Your task to perform on an android device: What's the latest video from GameSpot? Image 0: 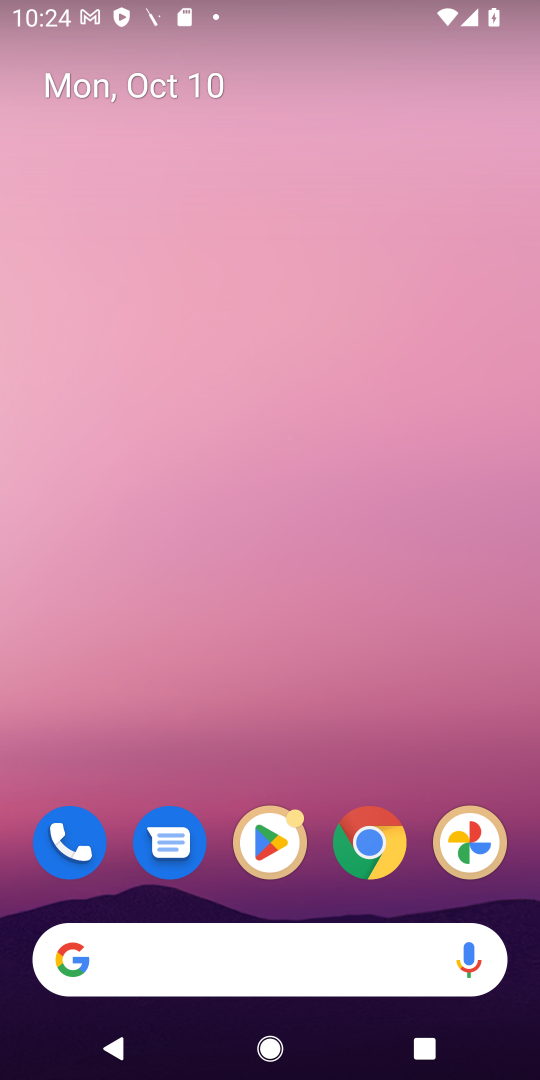
Step 0: drag from (309, 864) to (361, 21)
Your task to perform on an android device: What's the latest video from GameSpot? Image 1: 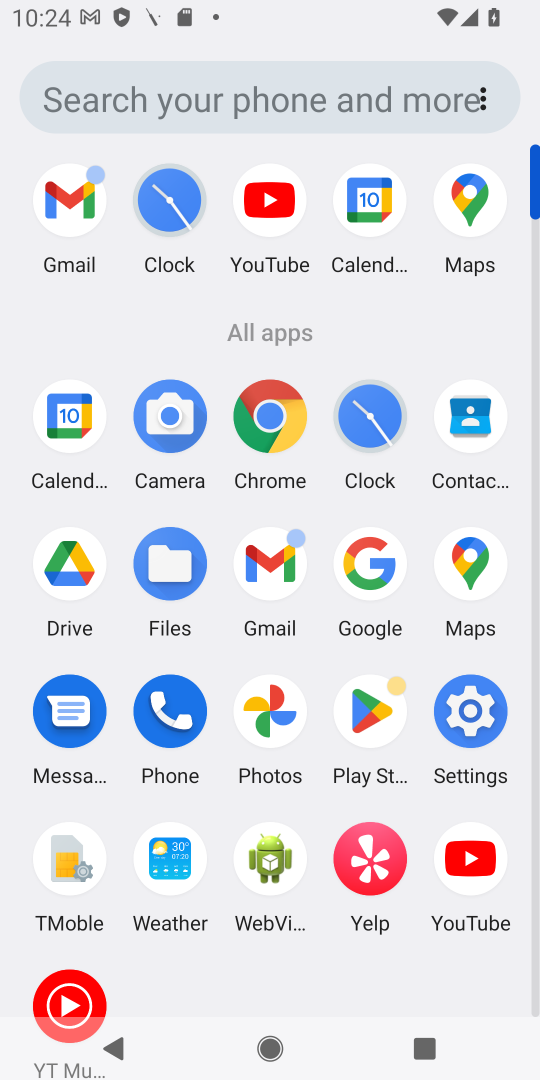
Step 1: click (480, 868)
Your task to perform on an android device: What's the latest video from GameSpot? Image 2: 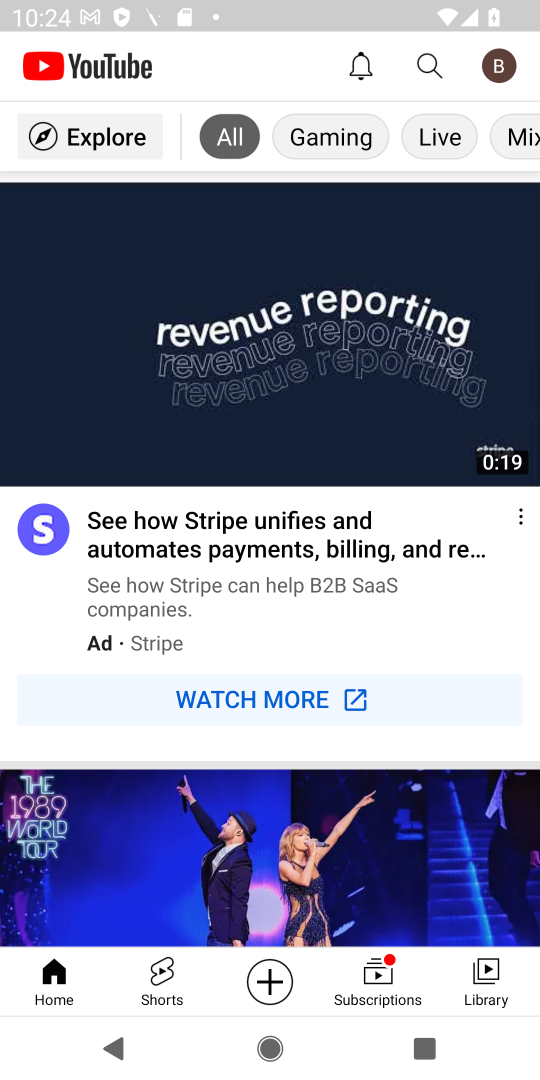
Step 2: click (421, 59)
Your task to perform on an android device: What's the latest video from GameSpot? Image 3: 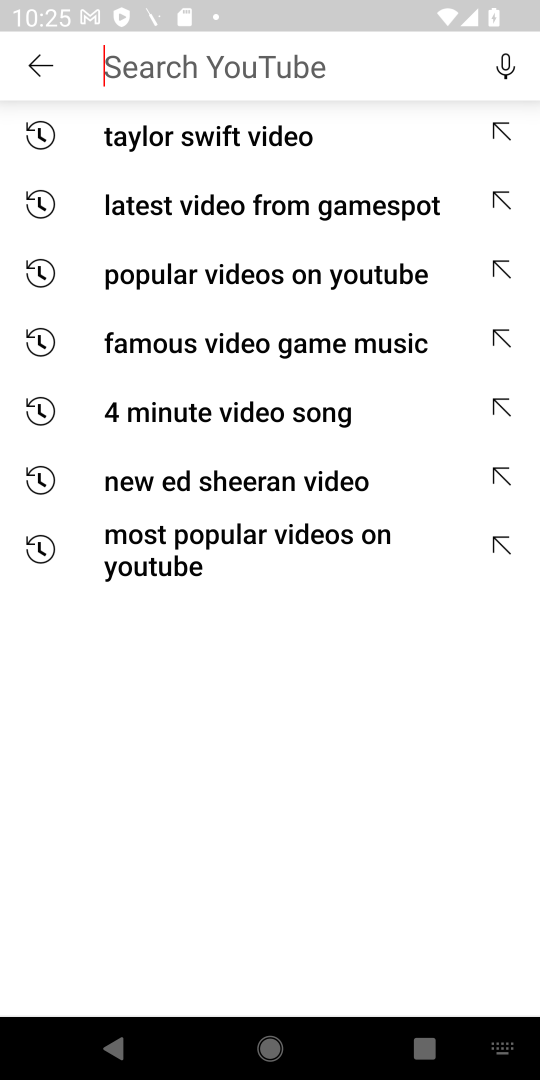
Step 3: type "latest video from gamespot"
Your task to perform on an android device: What's the latest video from GameSpot? Image 4: 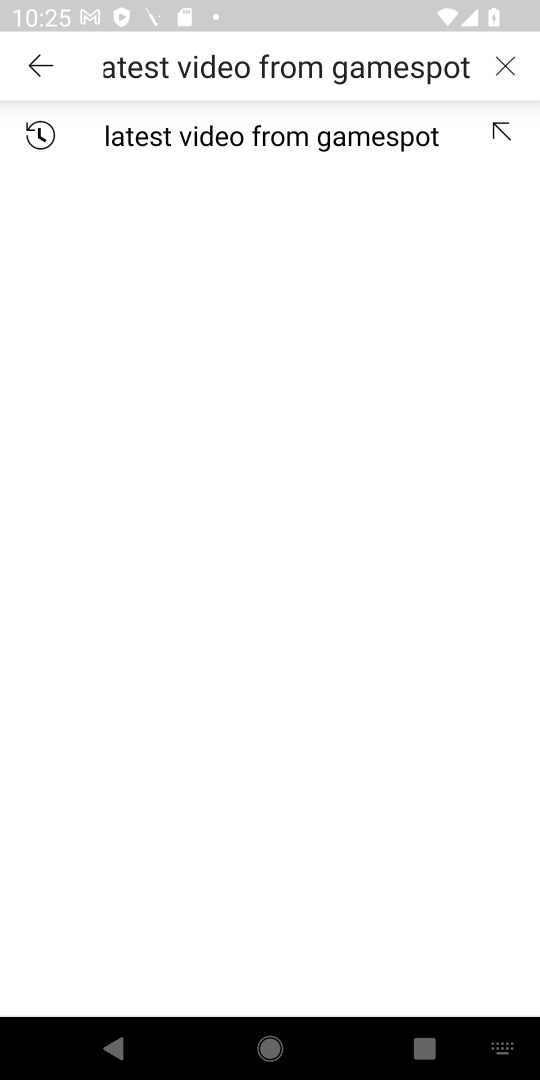
Step 4: click (229, 142)
Your task to perform on an android device: What's the latest video from GameSpot? Image 5: 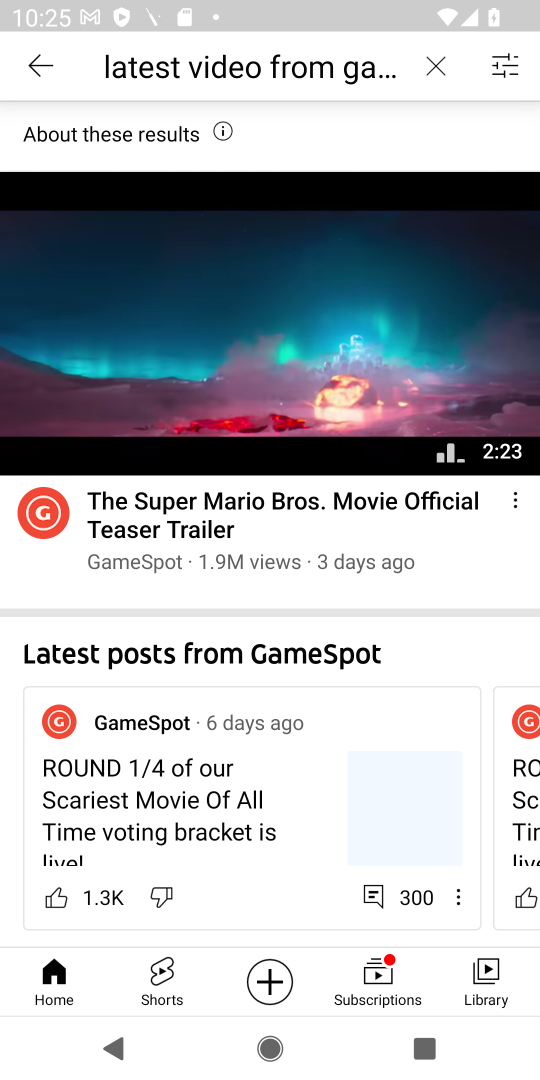
Step 5: drag from (282, 531) to (285, 450)
Your task to perform on an android device: What's the latest video from GameSpot? Image 6: 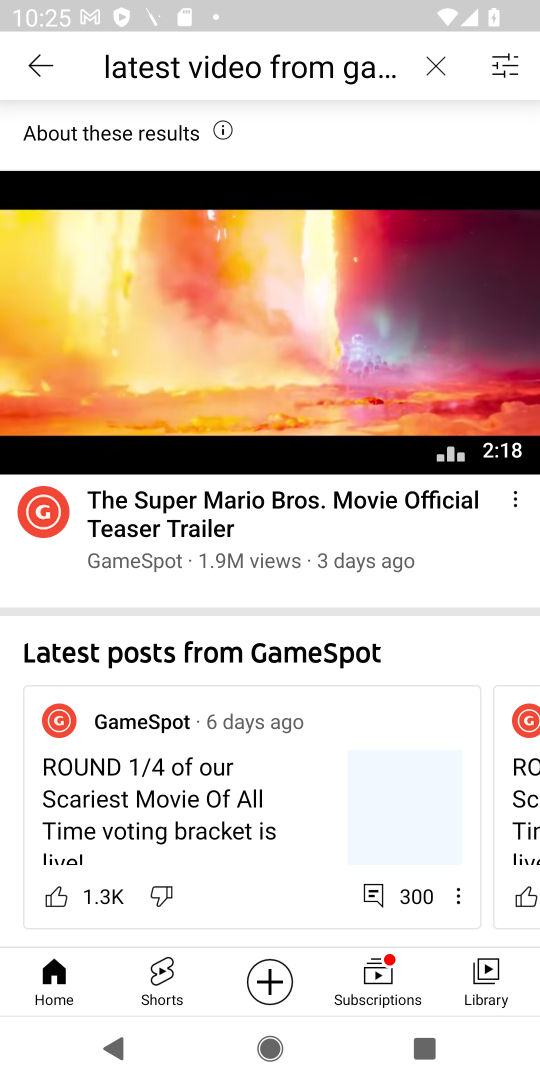
Step 6: click (292, 326)
Your task to perform on an android device: What's the latest video from GameSpot? Image 7: 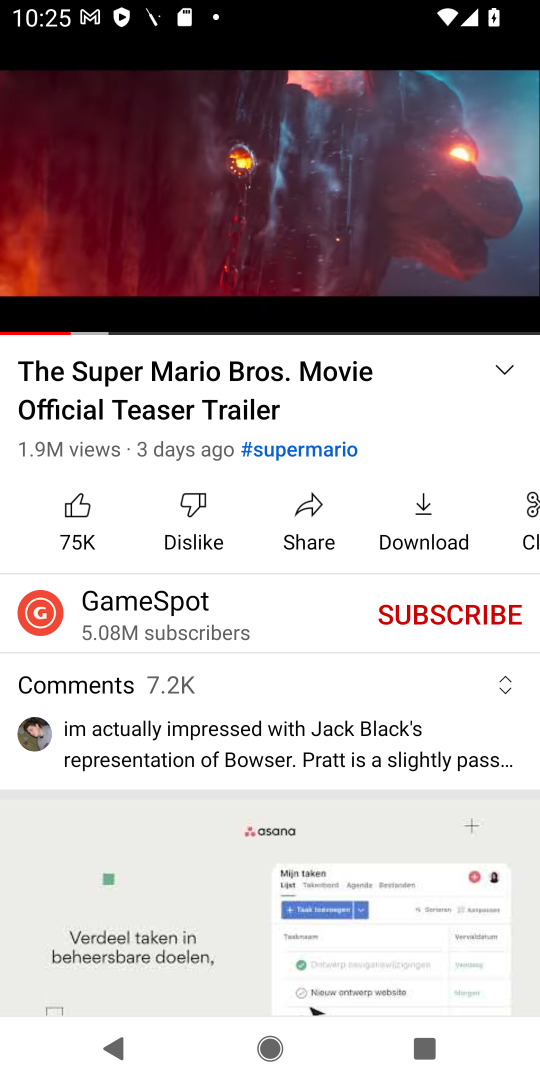
Step 7: click (262, 219)
Your task to perform on an android device: What's the latest video from GameSpot? Image 8: 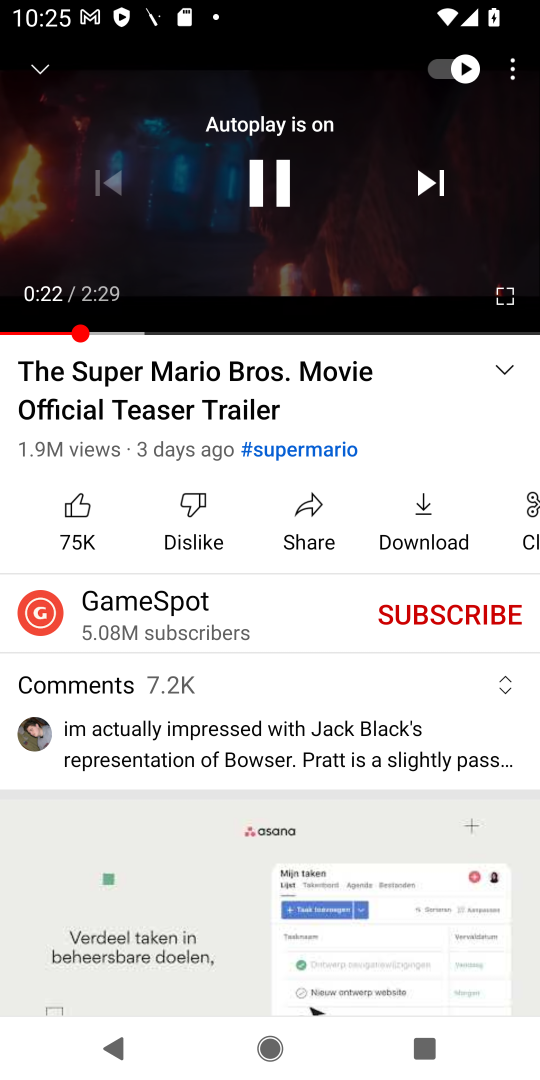
Step 8: click (262, 163)
Your task to perform on an android device: What's the latest video from GameSpot? Image 9: 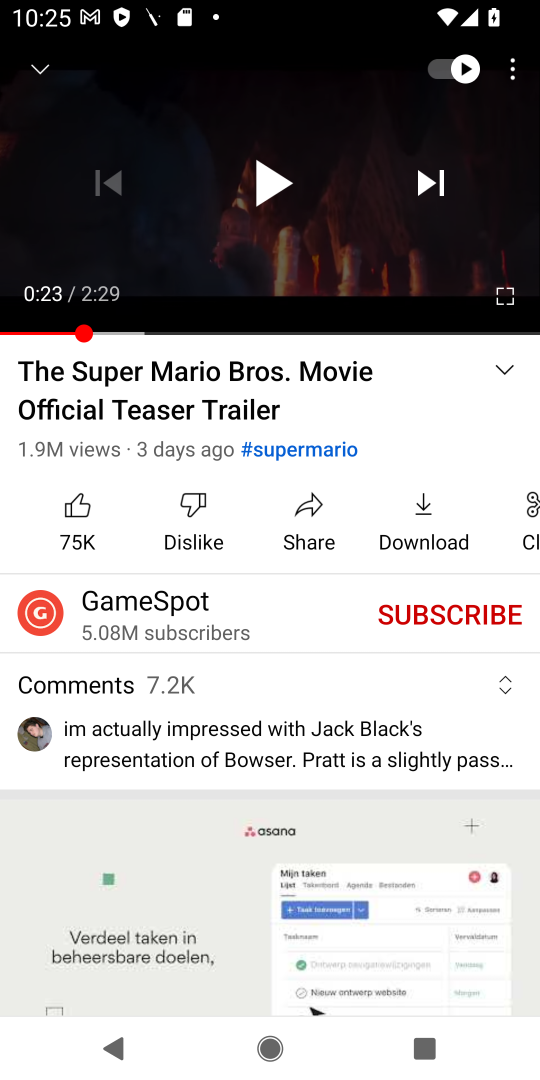
Step 9: task complete